Your task to perform on an android device: Show me recent news Image 0: 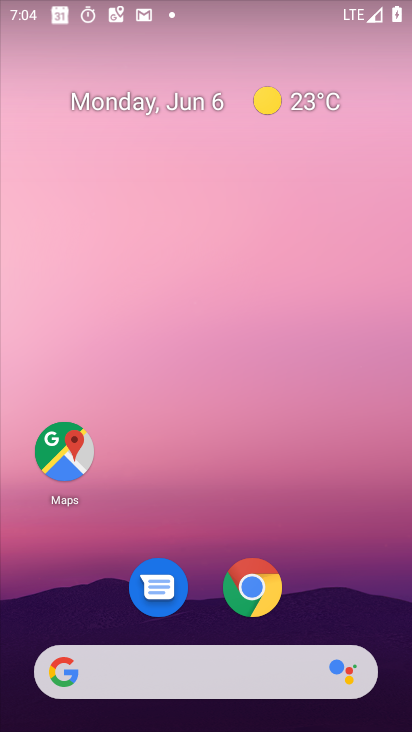
Step 0: drag from (390, 633) to (320, 21)
Your task to perform on an android device: Show me recent news Image 1: 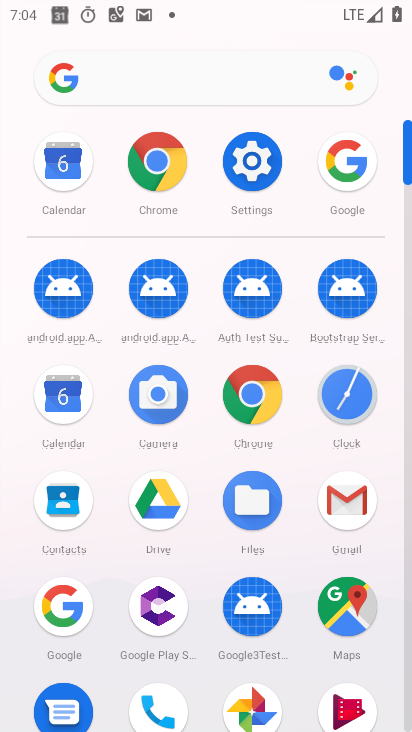
Step 1: click (237, 708)
Your task to perform on an android device: Show me recent news Image 2: 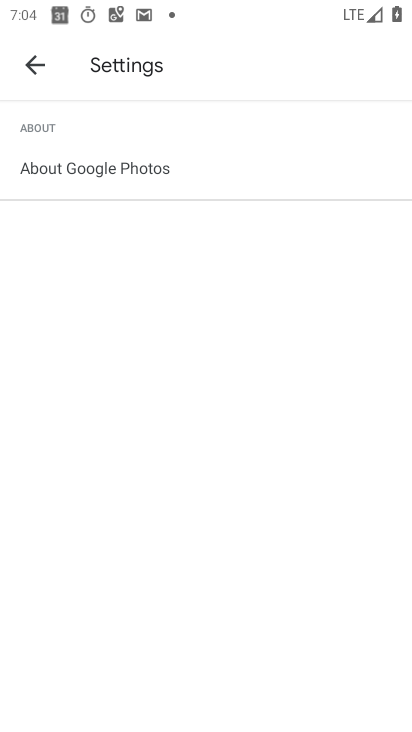
Step 2: press back button
Your task to perform on an android device: Show me recent news Image 3: 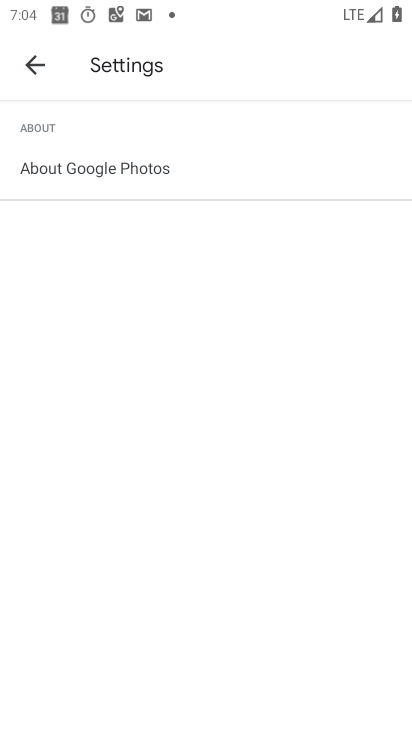
Step 3: press back button
Your task to perform on an android device: Show me recent news Image 4: 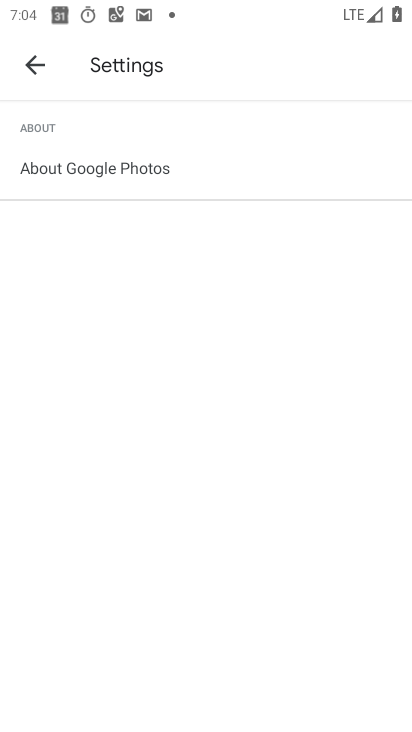
Step 4: press back button
Your task to perform on an android device: Show me recent news Image 5: 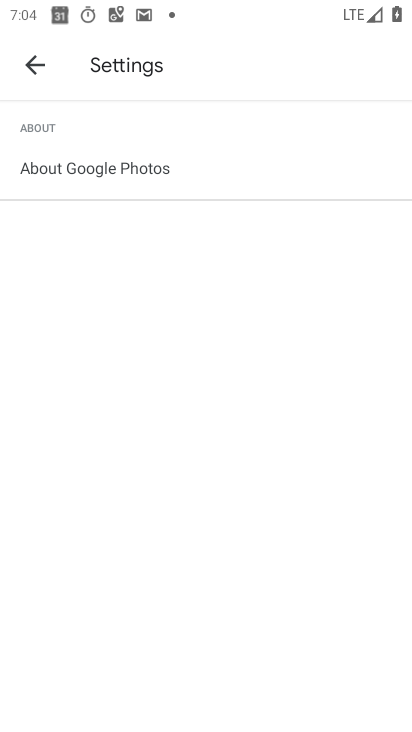
Step 5: press back button
Your task to perform on an android device: Show me recent news Image 6: 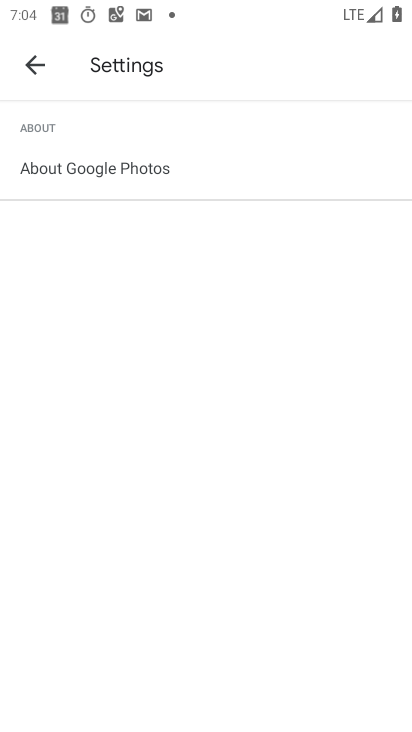
Step 6: press back button
Your task to perform on an android device: Show me recent news Image 7: 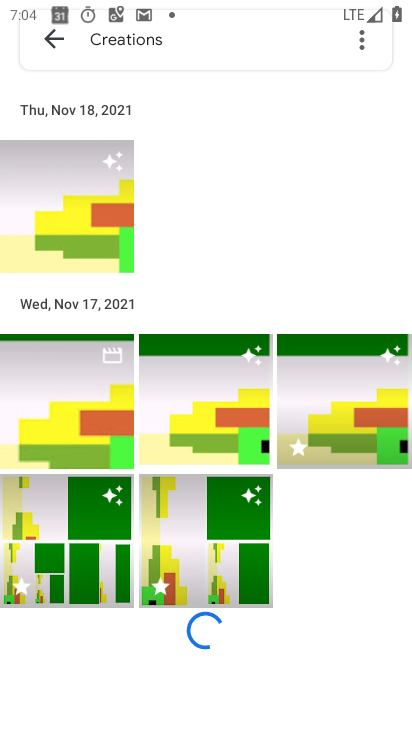
Step 7: click (51, 216)
Your task to perform on an android device: Show me recent news Image 8: 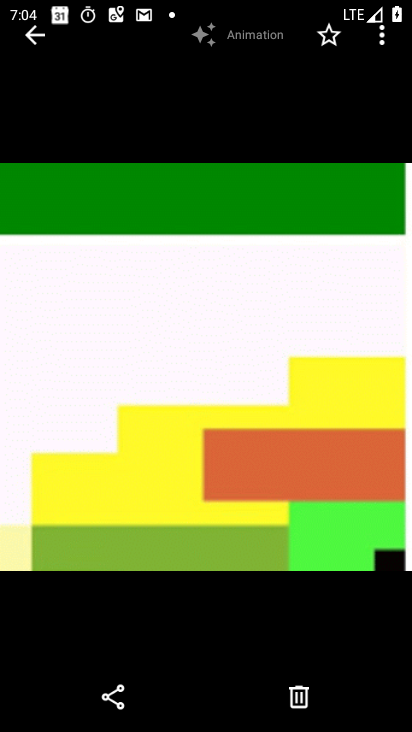
Step 8: task complete